Your task to perform on an android device: When is my next meeting? Image 0: 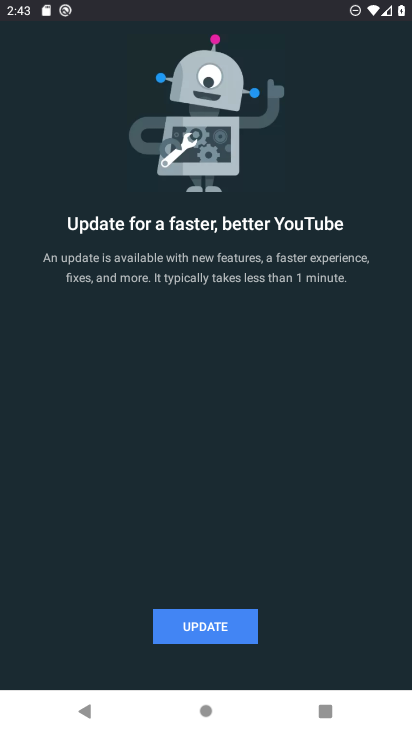
Step 0: press back button
Your task to perform on an android device: When is my next meeting? Image 1: 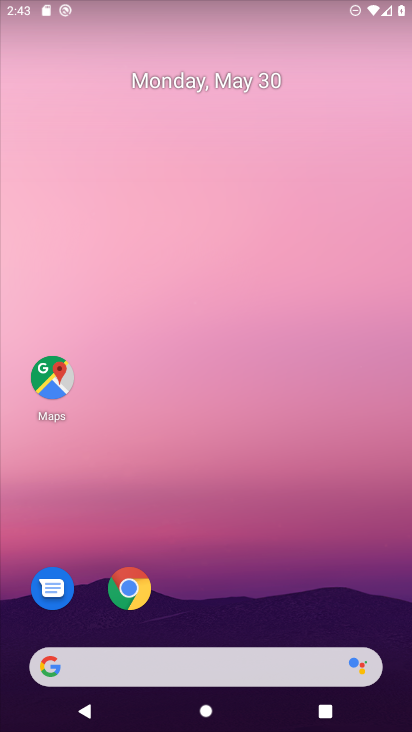
Step 1: drag from (193, 549) to (209, 200)
Your task to perform on an android device: When is my next meeting? Image 2: 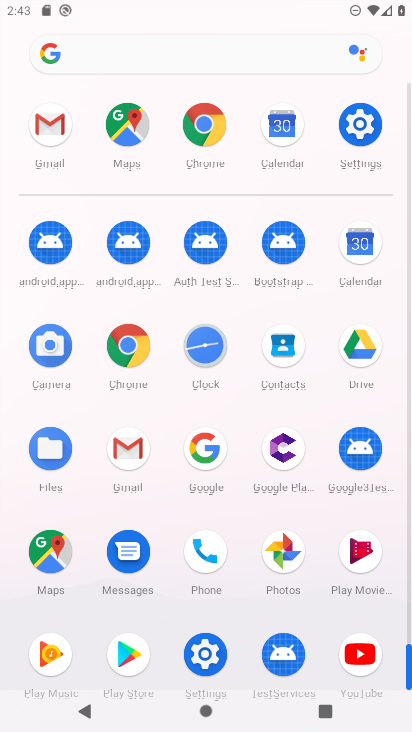
Step 2: click (352, 240)
Your task to perform on an android device: When is my next meeting? Image 3: 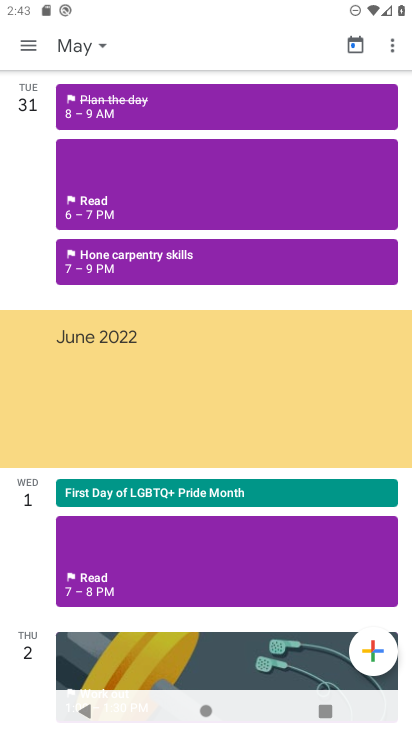
Step 3: task complete